Your task to perform on an android device: Search for Italian restaurants on Maps Image 0: 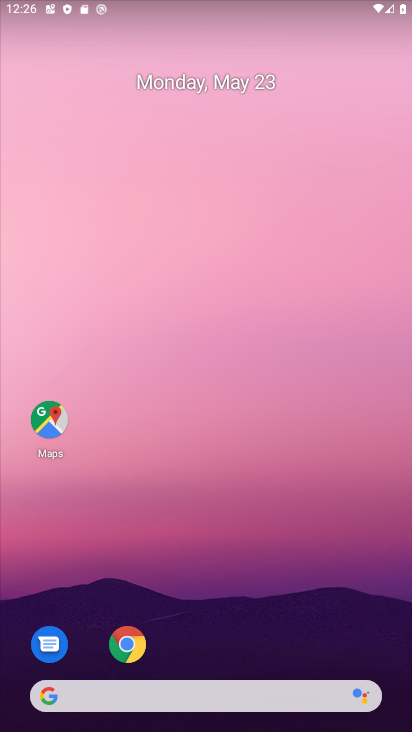
Step 0: click (54, 424)
Your task to perform on an android device: Search for Italian restaurants on Maps Image 1: 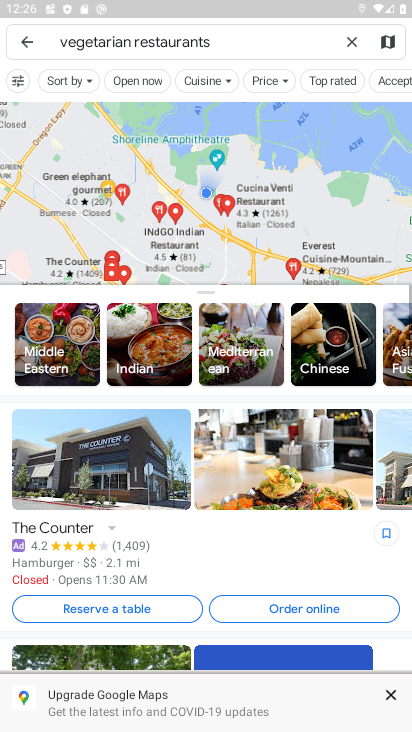
Step 1: click (352, 42)
Your task to perform on an android device: Search for Italian restaurants on Maps Image 2: 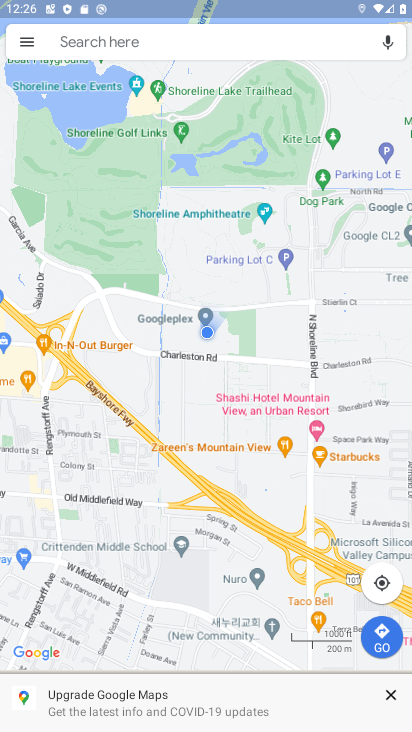
Step 2: click (237, 44)
Your task to perform on an android device: Search for Italian restaurants on Maps Image 3: 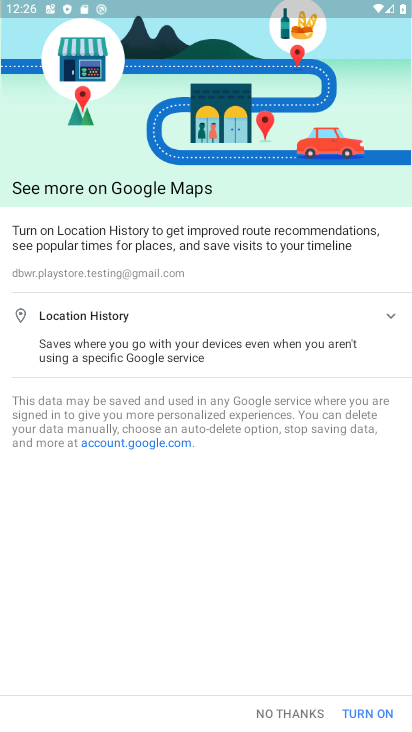
Step 3: click (305, 711)
Your task to perform on an android device: Search for Italian restaurants on Maps Image 4: 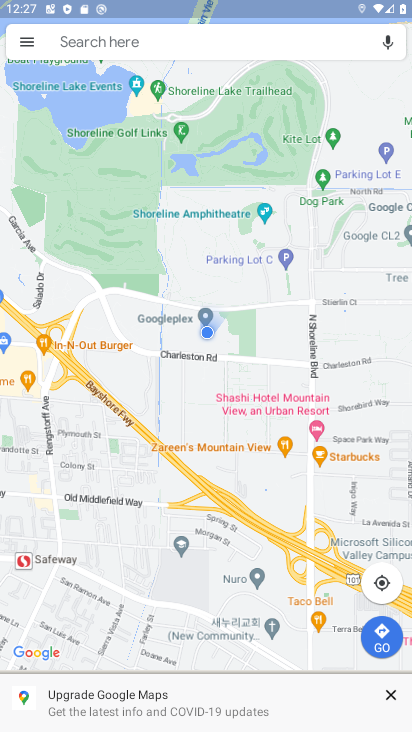
Step 4: click (252, 42)
Your task to perform on an android device: Search for Italian restaurants on Maps Image 5: 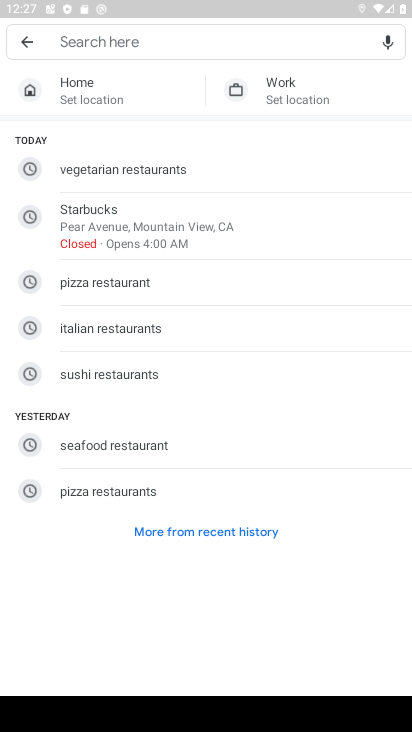
Step 5: click (154, 330)
Your task to perform on an android device: Search for Italian restaurants on Maps Image 6: 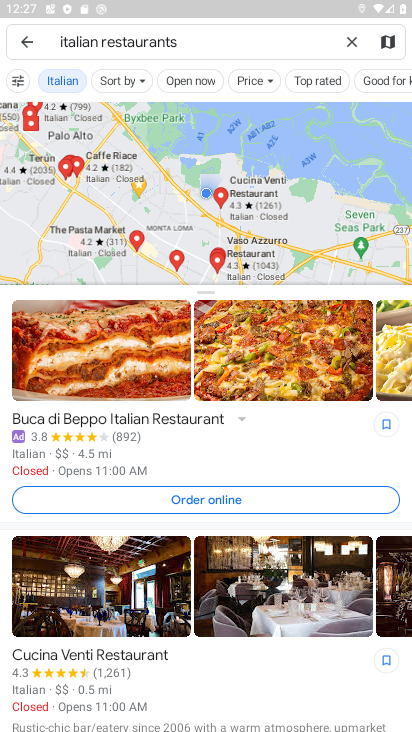
Step 6: task complete